Your task to perform on an android device: Open the Play Movies app and select the watchlist tab. Image 0: 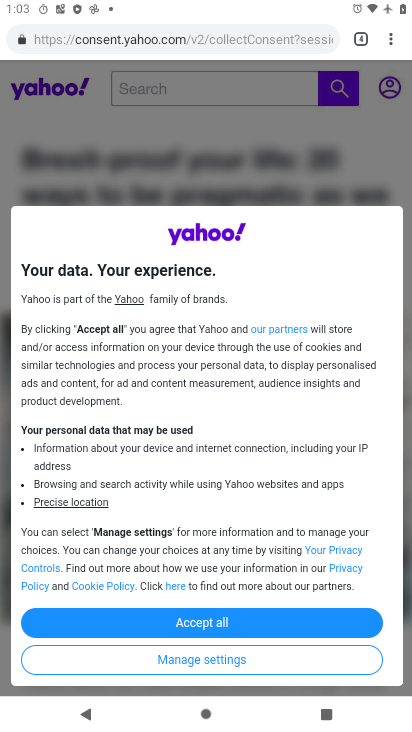
Step 0: press home button
Your task to perform on an android device: Open the Play Movies app and select the watchlist tab. Image 1: 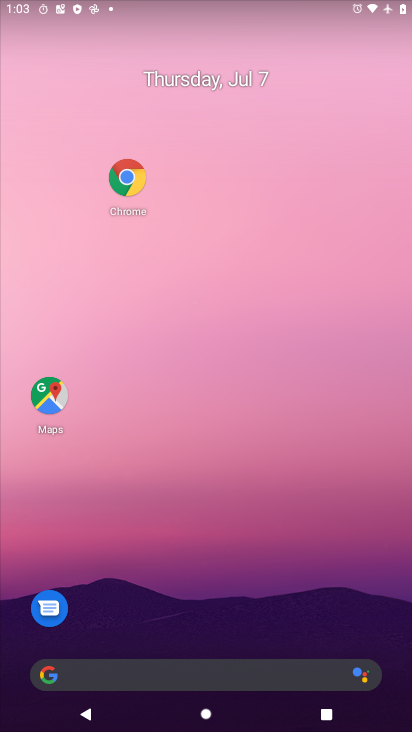
Step 1: drag from (184, 666) to (184, 323)
Your task to perform on an android device: Open the Play Movies app and select the watchlist tab. Image 2: 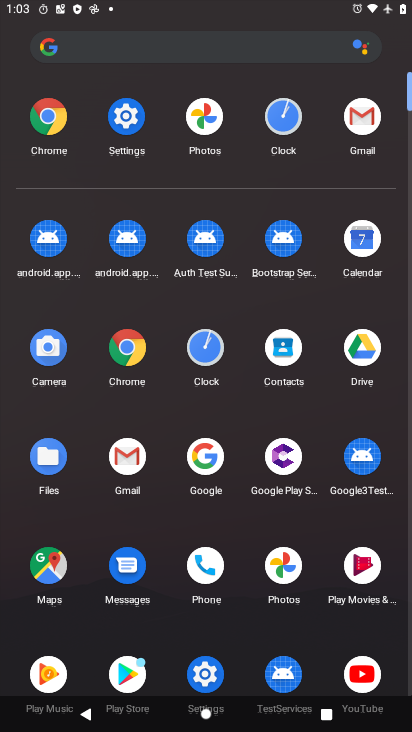
Step 2: click (350, 575)
Your task to perform on an android device: Open the Play Movies app and select the watchlist tab. Image 3: 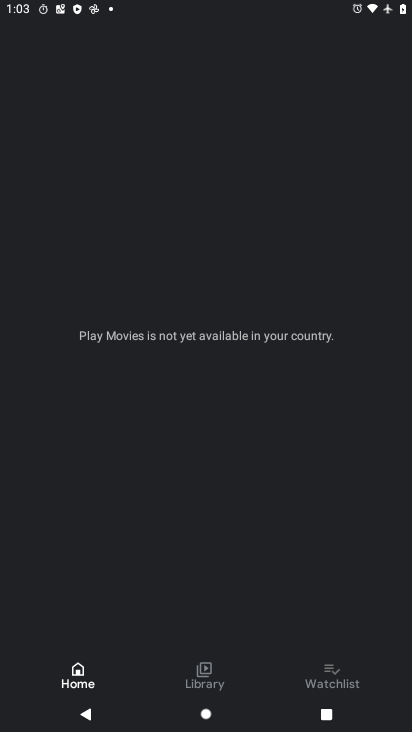
Step 3: click (328, 675)
Your task to perform on an android device: Open the Play Movies app and select the watchlist tab. Image 4: 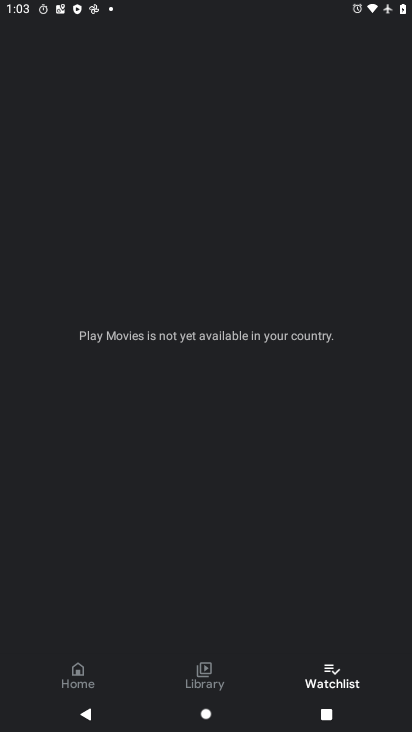
Step 4: task complete